Your task to perform on an android device: Go to accessibility settings Image 0: 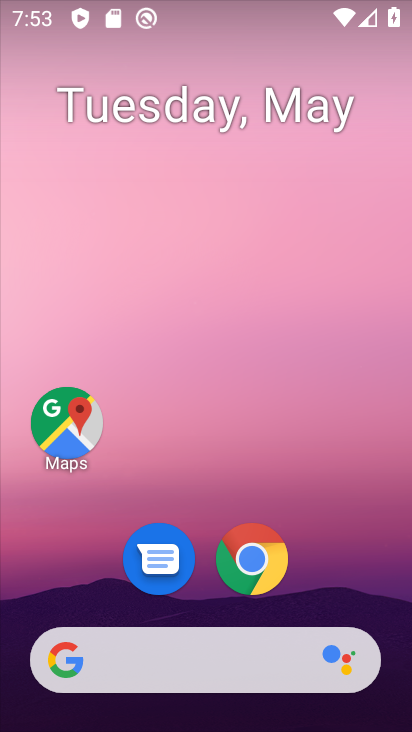
Step 0: drag from (179, 594) to (183, 244)
Your task to perform on an android device: Go to accessibility settings Image 1: 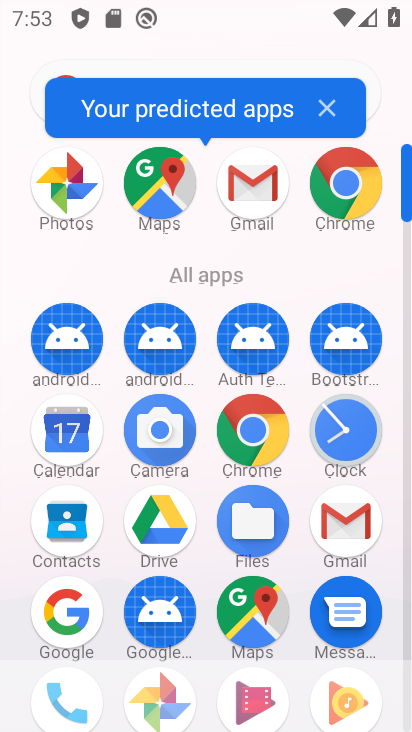
Step 1: drag from (205, 547) to (244, 253)
Your task to perform on an android device: Go to accessibility settings Image 2: 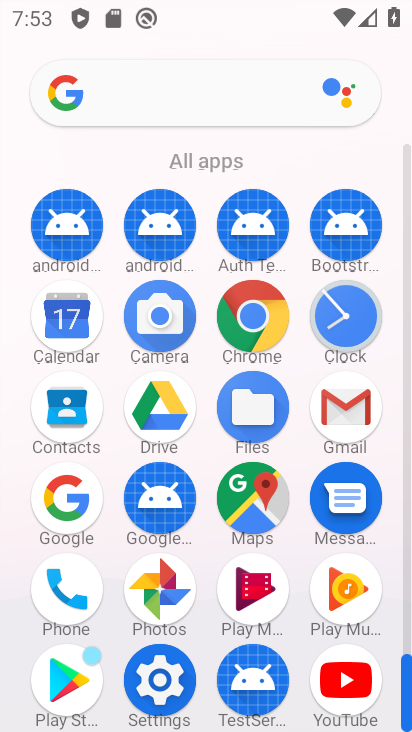
Step 2: drag from (243, 600) to (258, 288)
Your task to perform on an android device: Go to accessibility settings Image 3: 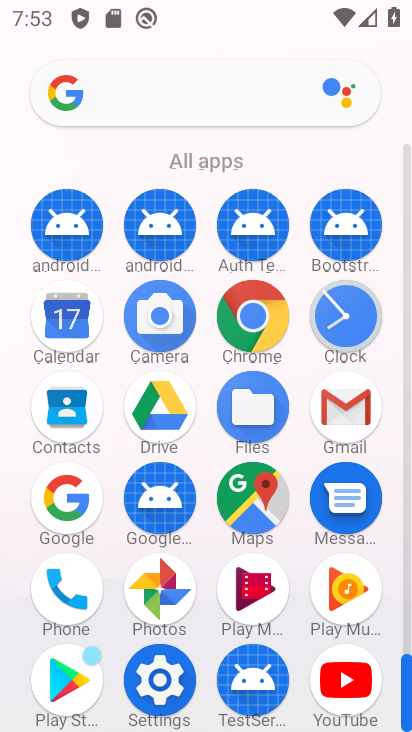
Step 3: click (159, 658)
Your task to perform on an android device: Go to accessibility settings Image 4: 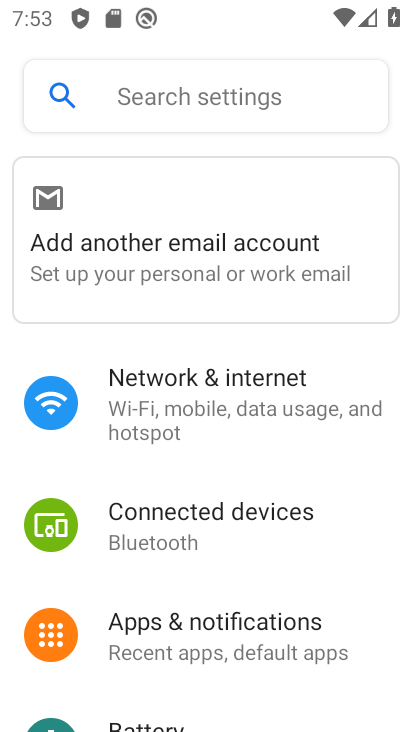
Step 4: drag from (176, 619) to (207, 261)
Your task to perform on an android device: Go to accessibility settings Image 5: 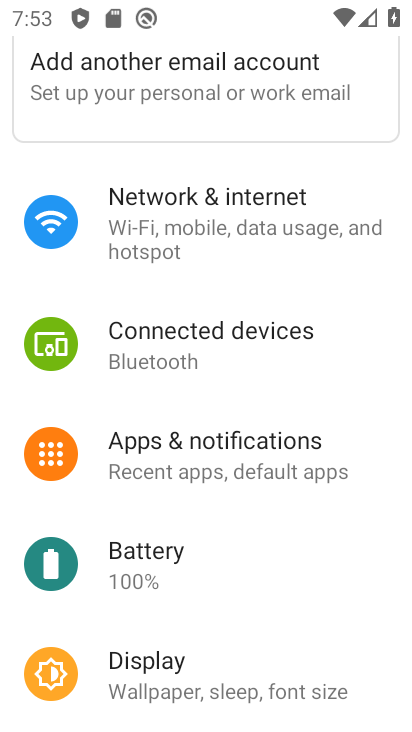
Step 5: drag from (248, 640) to (272, 283)
Your task to perform on an android device: Go to accessibility settings Image 6: 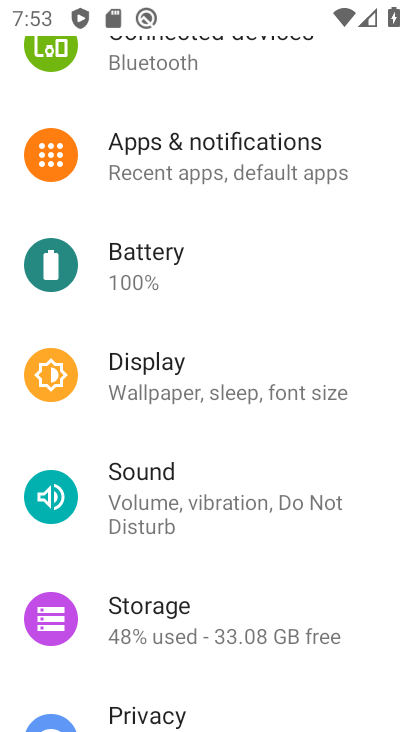
Step 6: drag from (254, 607) to (290, 283)
Your task to perform on an android device: Go to accessibility settings Image 7: 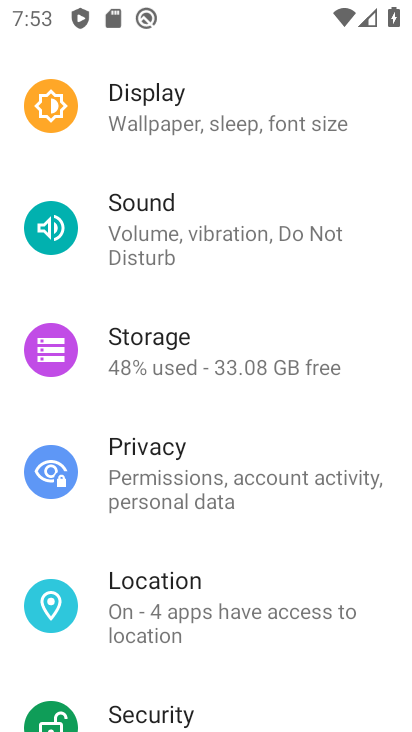
Step 7: drag from (256, 627) to (298, 317)
Your task to perform on an android device: Go to accessibility settings Image 8: 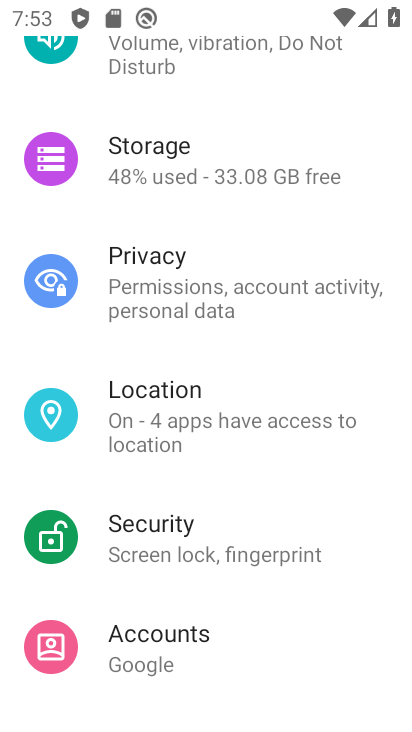
Step 8: drag from (195, 644) to (258, 303)
Your task to perform on an android device: Go to accessibility settings Image 9: 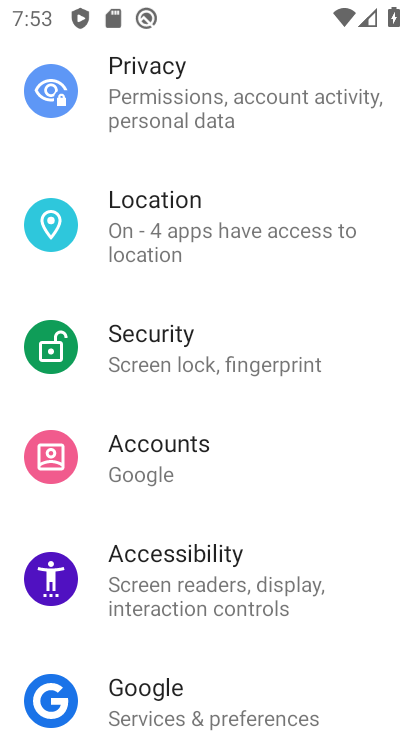
Step 9: click (174, 571)
Your task to perform on an android device: Go to accessibility settings Image 10: 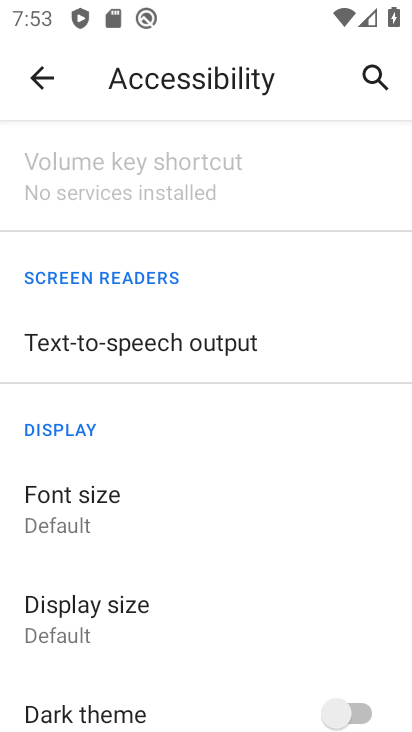
Step 10: task complete